Your task to perform on an android device: Turn off the flashlight Image 0: 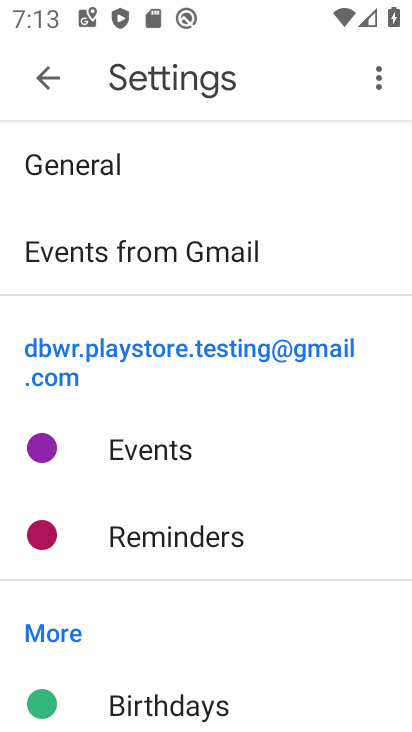
Step 0: press home button
Your task to perform on an android device: Turn off the flashlight Image 1: 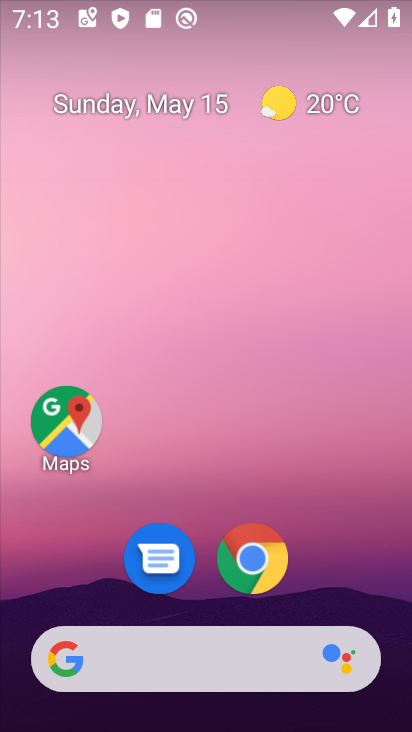
Step 1: drag from (291, 469) to (158, 20)
Your task to perform on an android device: Turn off the flashlight Image 2: 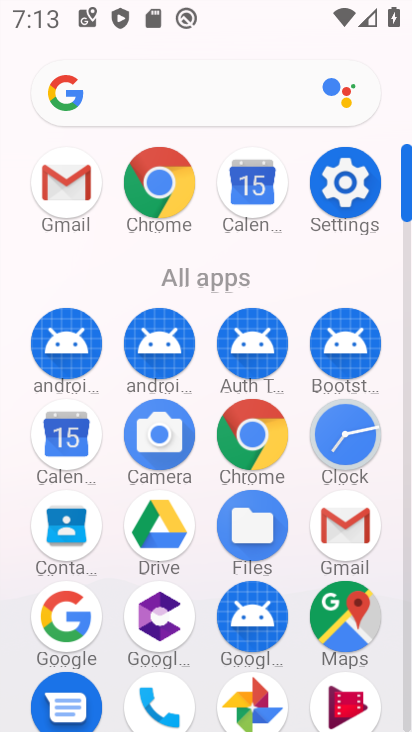
Step 2: click (345, 182)
Your task to perform on an android device: Turn off the flashlight Image 3: 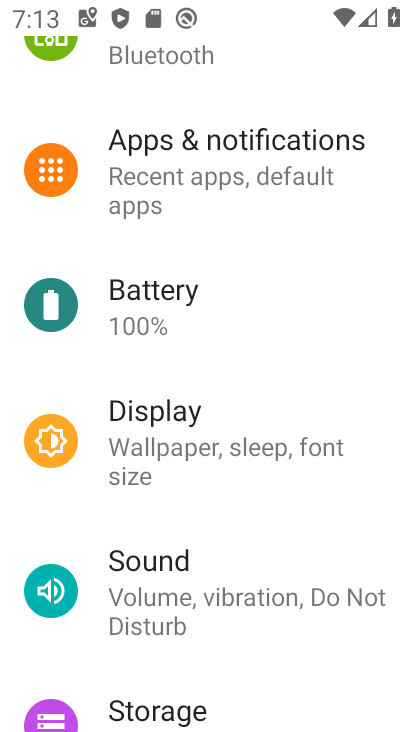
Step 3: click (164, 420)
Your task to perform on an android device: Turn off the flashlight Image 4: 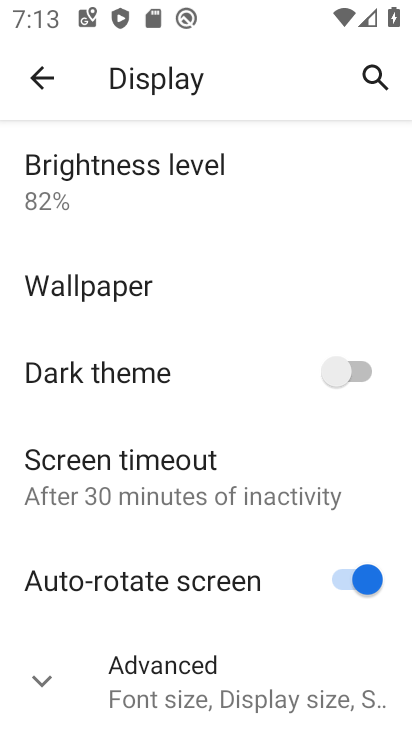
Step 4: task complete